Your task to perform on an android device: What's the weather going to be tomorrow? Image 0: 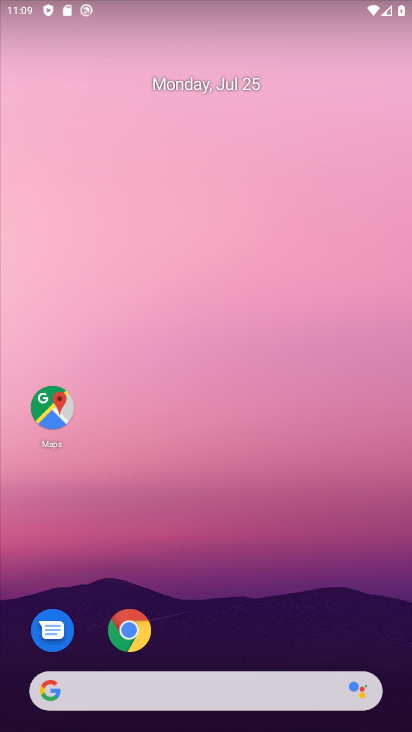
Step 0: click (191, 688)
Your task to perform on an android device: What's the weather going to be tomorrow? Image 1: 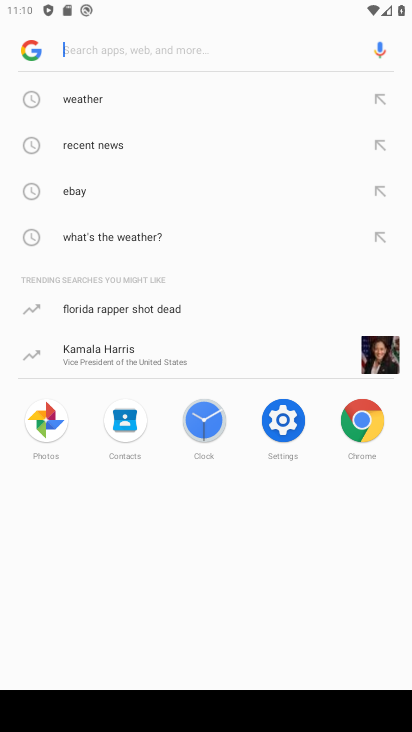
Step 1: type "what's the weather going to be tomorrow"
Your task to perform on an android device: What's the weather going to be tomorrow? Image 2: 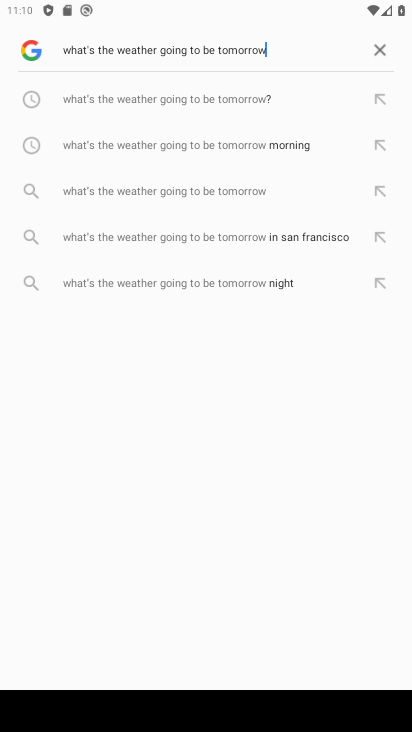
Step 2: click (108, 104)
Your task to perform on an android device: What's the weather going to be tomorrow? Image 3: 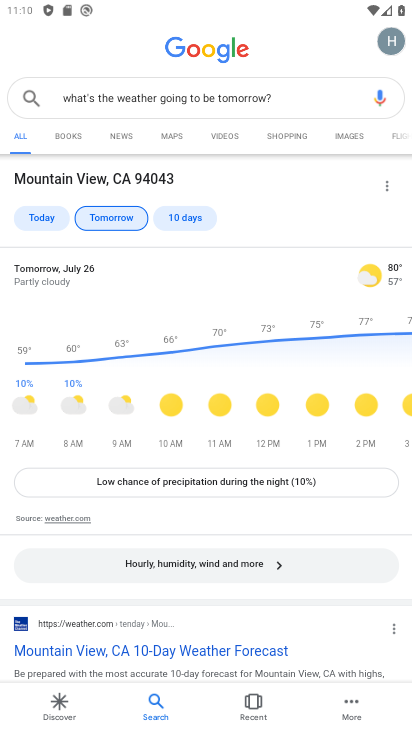
Step 3: task complete